Your task to perform on an android device: Open Chrome and go to the settings page Image 0: 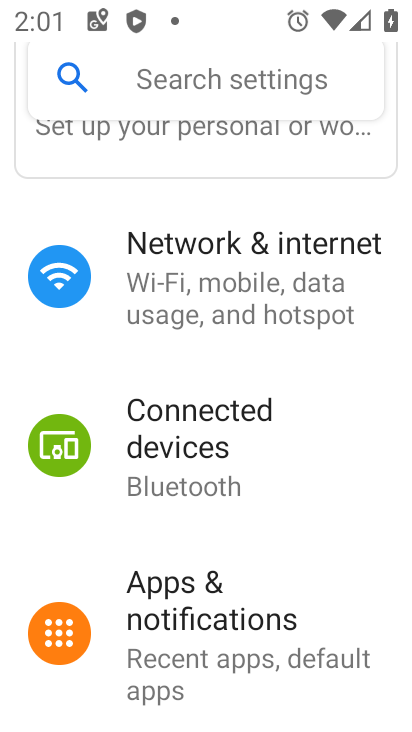
Step 0: press home button
Your task to perform on an android device: Open Chrome and go to the settings page Image 1: 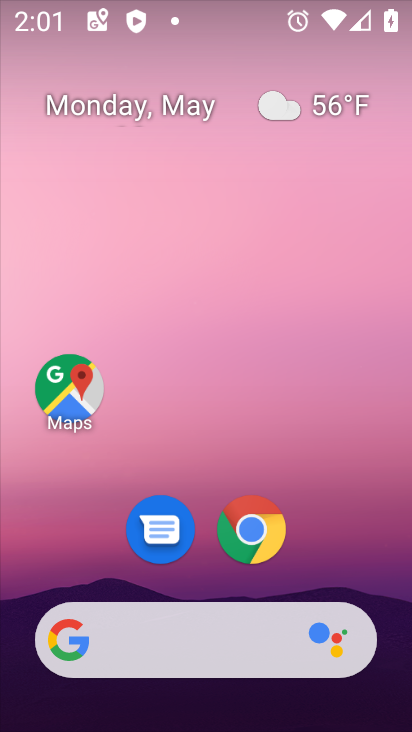
Step 1: click (255, 531)
Your task to perform on an android device: Open Chrome and go to the settings page Image 2: 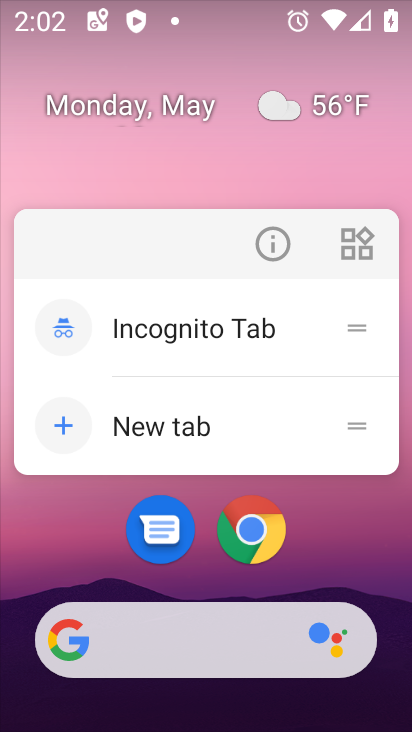
Step 2: click (243, 527)
Your task to perform on an android device: Open Chrome and go to the settings page Image 3: 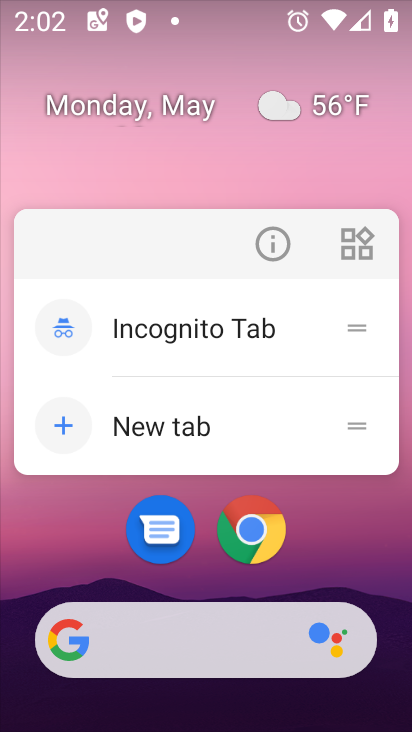
Step 3: click (252, 523)
Your task to perform on an android device: Open Chrome and go to the settings page Image 4: 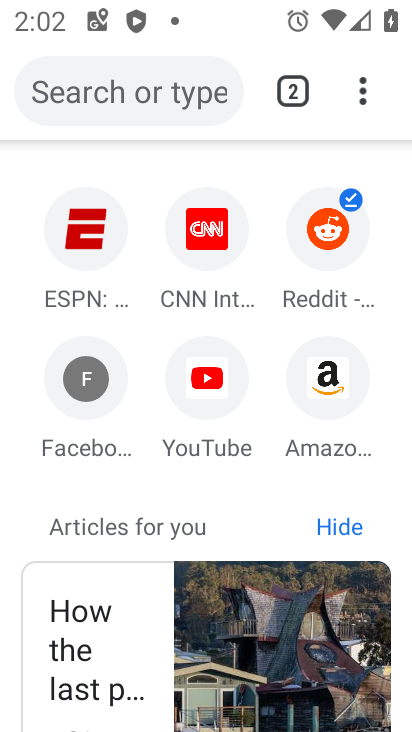
Step 4: click (357, 92)
Your task to perform on an android device: Open Chrome and go to the settings page Image 5: 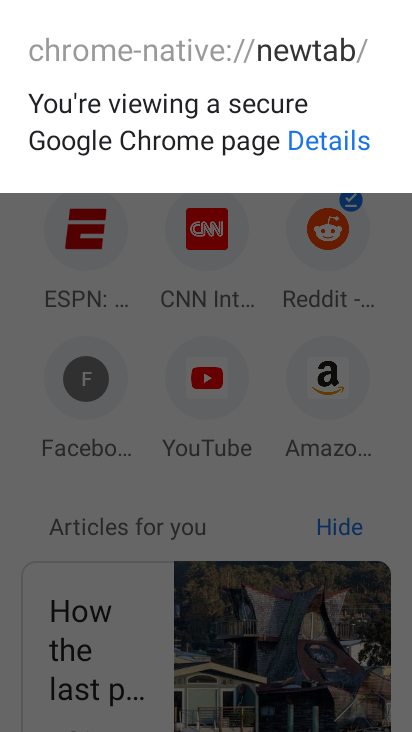
Step 5: click (243, 313)
Your task to perform on an android device: Open Chrome and go to the settings page Image 6: 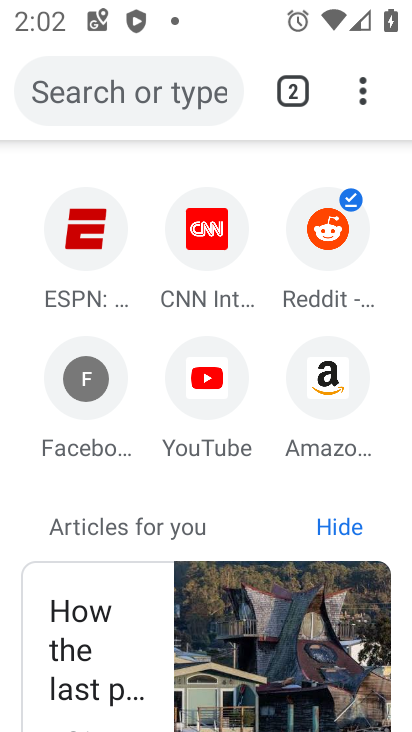
Step 6: click (365, 79)
Your task to perform on an android device: Open Chrome and go to the settings page Image 7: 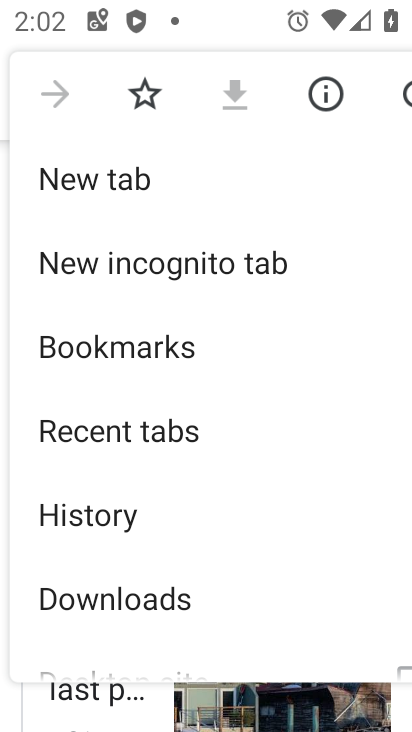
Step 7: drag from (171, 567) to (194, 360)
Your task to perform on an android device: Open Chrome and go to the settings page Image 8: 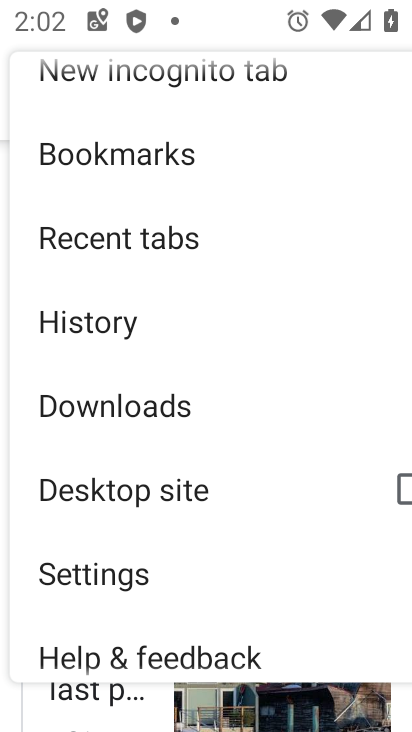
Step 8: drag from (185, 578) to (208, 373)
Your task to perform on an android device: Open Chrome and go to the settings page Image 9: 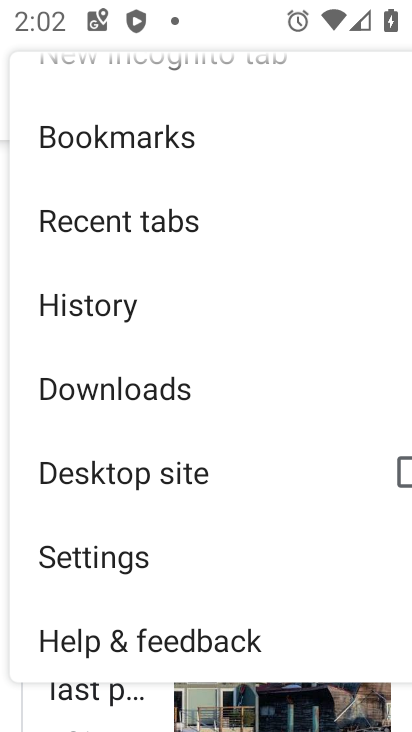
Step 9: drag from (234, 551) to (281, 389)
Your task to perform on an android device: Open Chrome and go to the settings page Image 10: 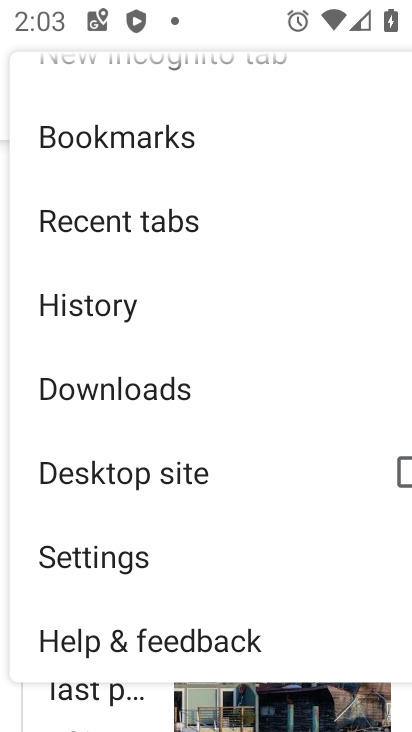
Step 10: click (177, 557)
Your task to perform on an android device: Open Chrome and go to the settings page Image 11: 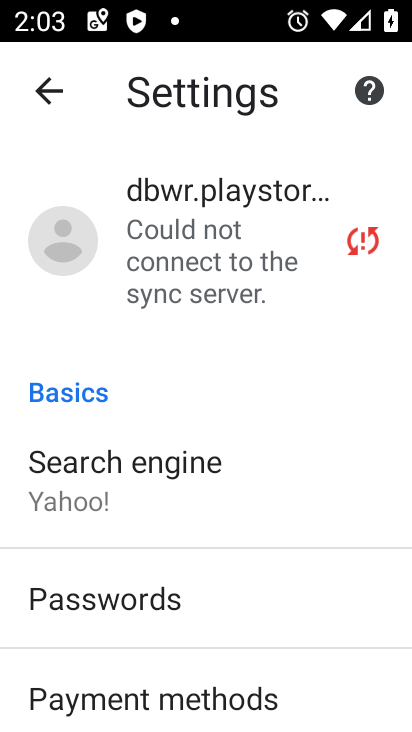
Step 11: task complete